Your task to perform on an android device: Go to wifi settings Image 0: 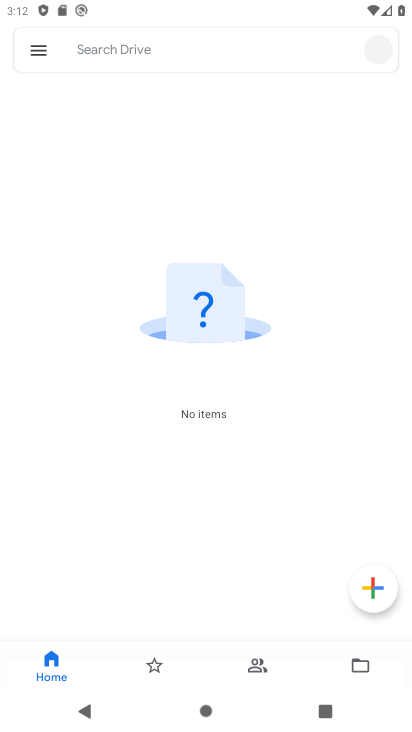
Step 0: press home button
Your task to perform on an android device: Go to wifi settings Image 1: 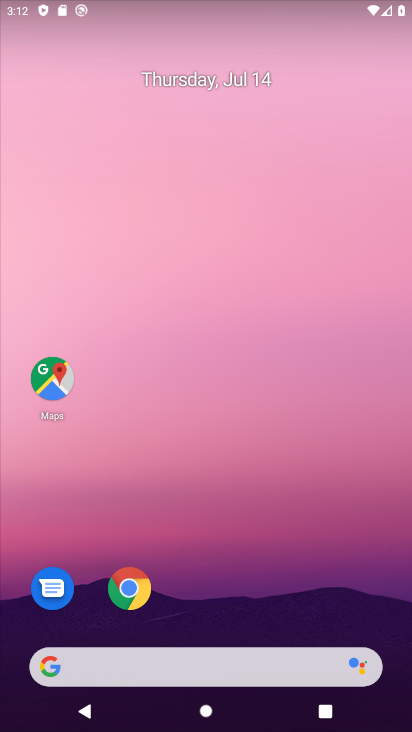
Step 1: drag from (266, 421) to (220, 73)
Your task to perform on an android device: Go to wifi settings Image 2: 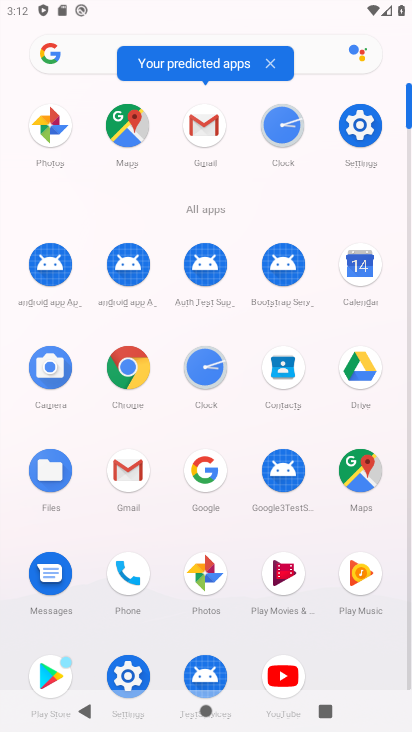
Step 2: click (359, 129)
Your task to perform on an android device: Go to wifi settings Image 3: 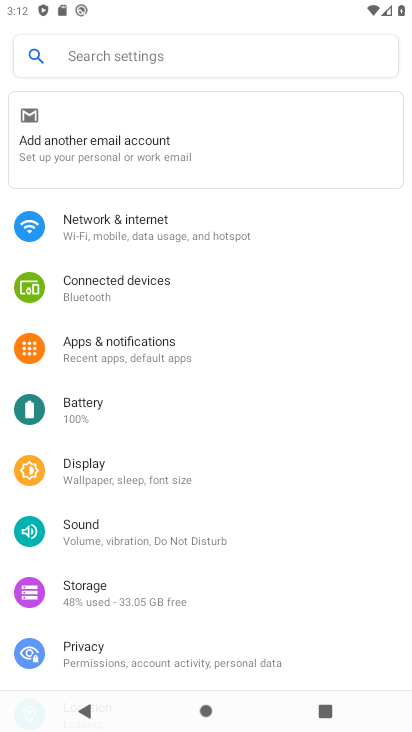
Step 3: click (95, 225)
Your task to perform on an android device: Go to wifi settings Image 4: 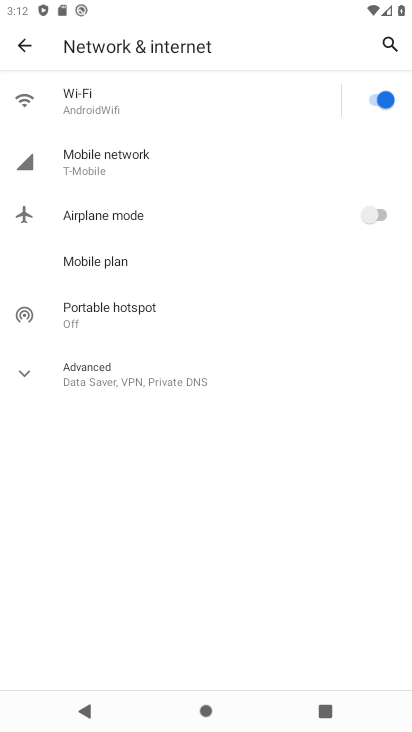
Step 4: click (71, 94)
Your task to perform on an android device: Go to wifi settings Image 5: 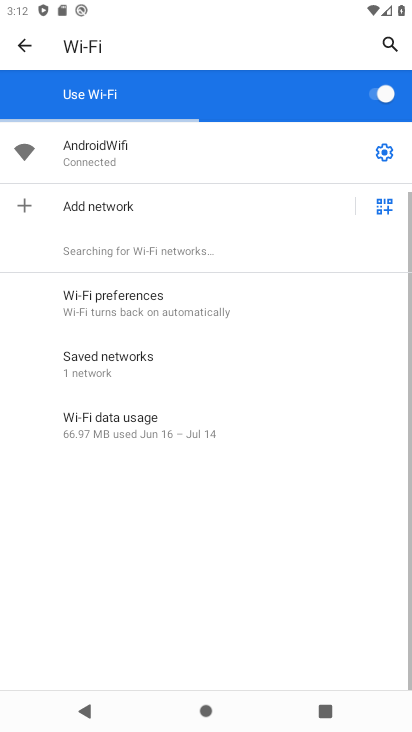
Step 5: task complete